Your task to perform on an android device: set the timer Image 0: 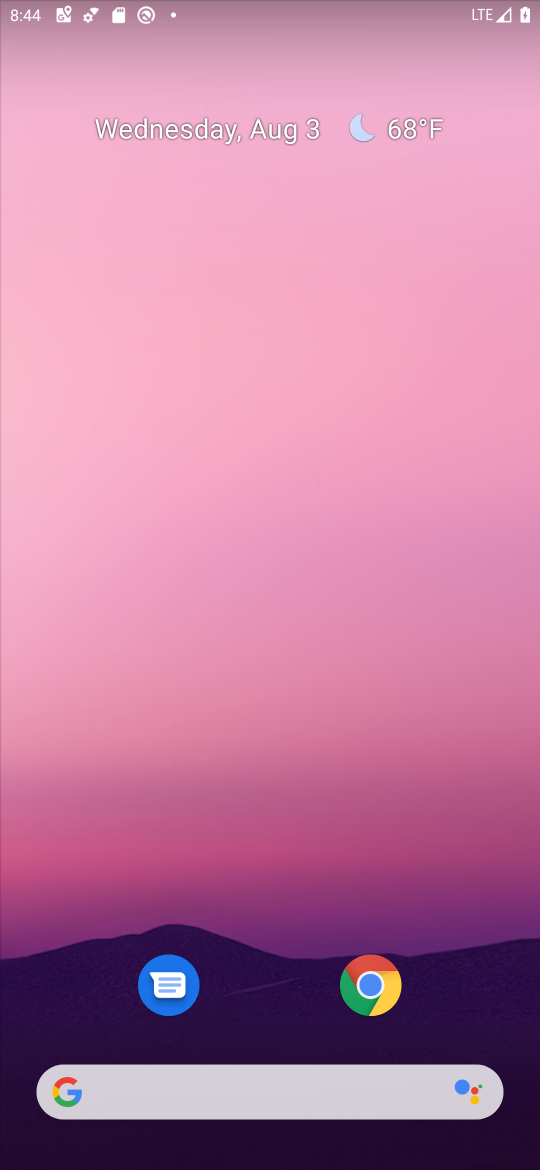
Step 0: drag from (272, 1009) to (253, 233)
Your task to perform on an android device: set the timer Image 1: 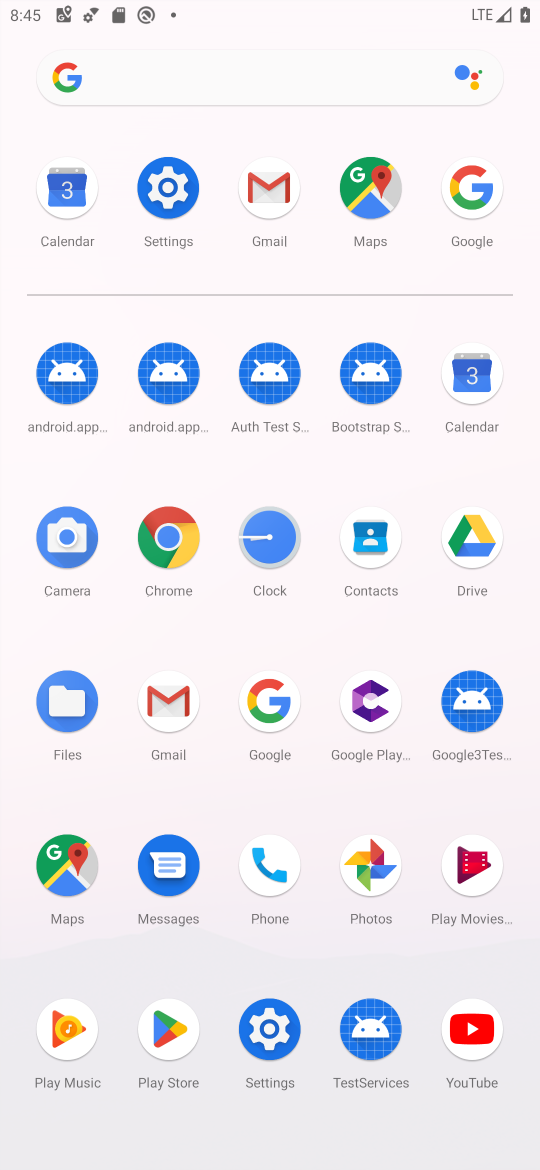
Step 1: click (259, 550)
Your task to perform on an android device: set the timer Image 2: 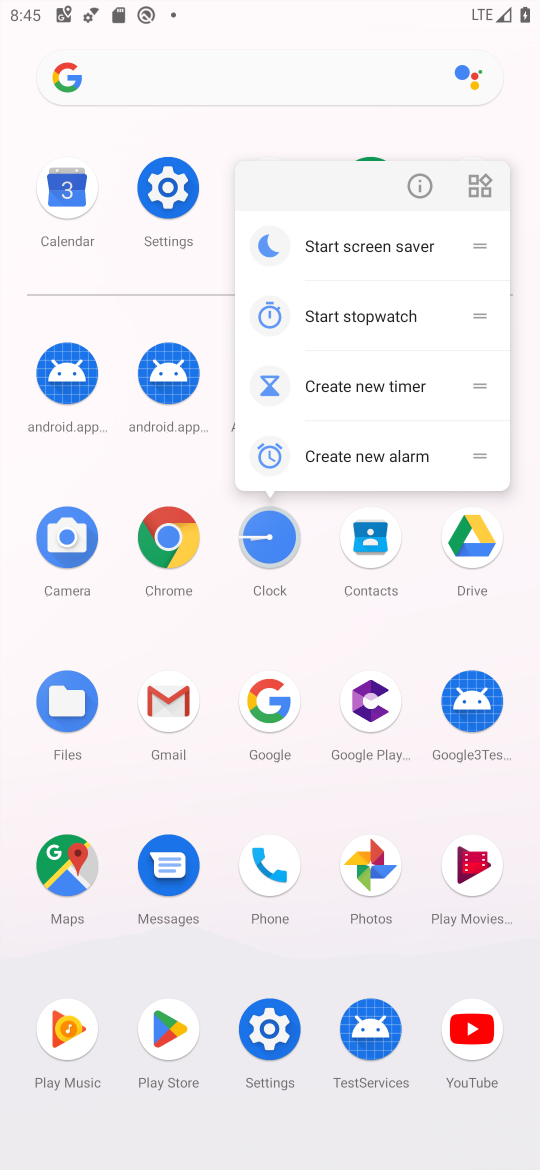
Step 2: click (259, 550)
Your task to perform on an android device: set the timer Image 3: 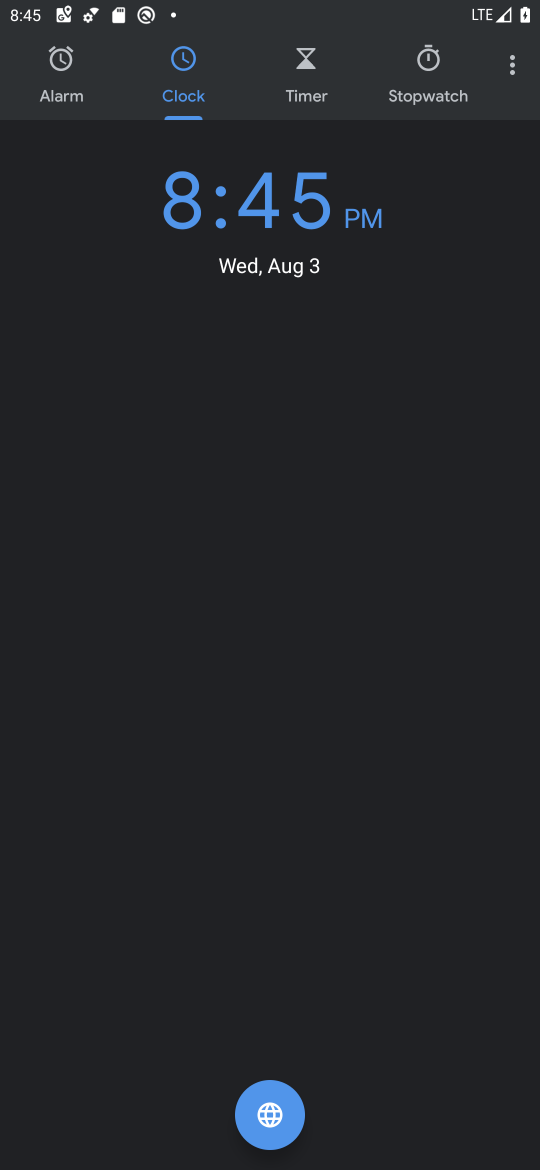
Step 3: click (306, 89)
Your task to perform on an android device: set the timer Image 4: 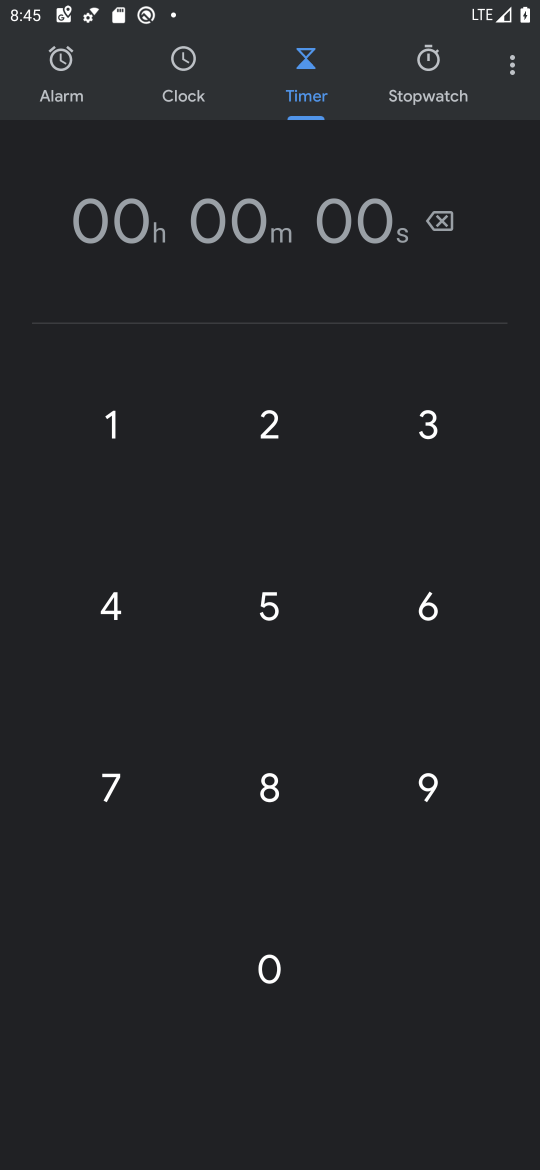
Step 4: type "11"
Your task to perform on an android device: set the timer Image 5: 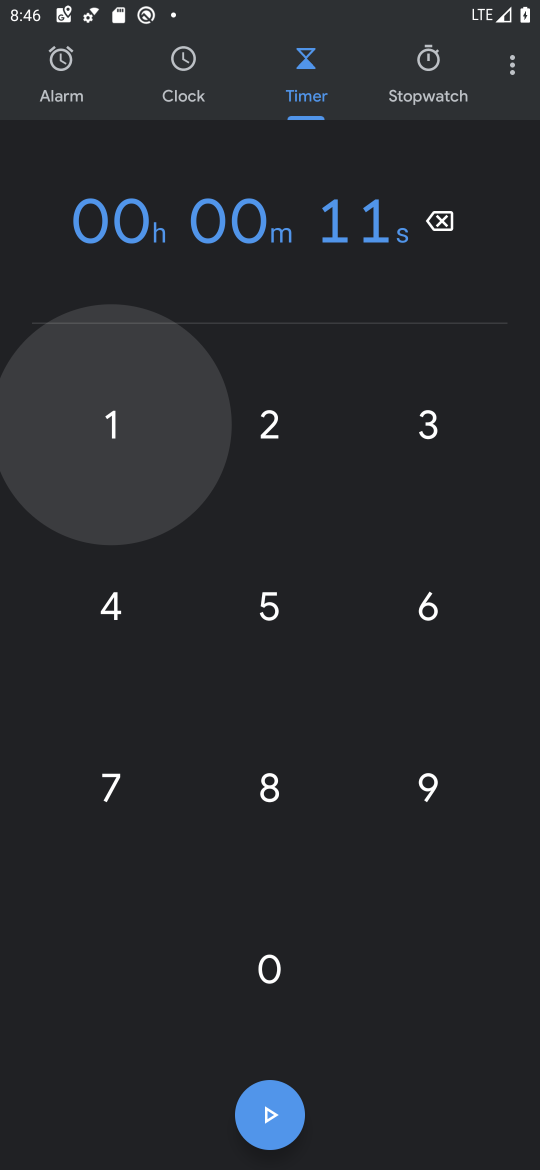
Step 5: click (271, 1102)
Your task to perform on an android device: set the timer Image 6: 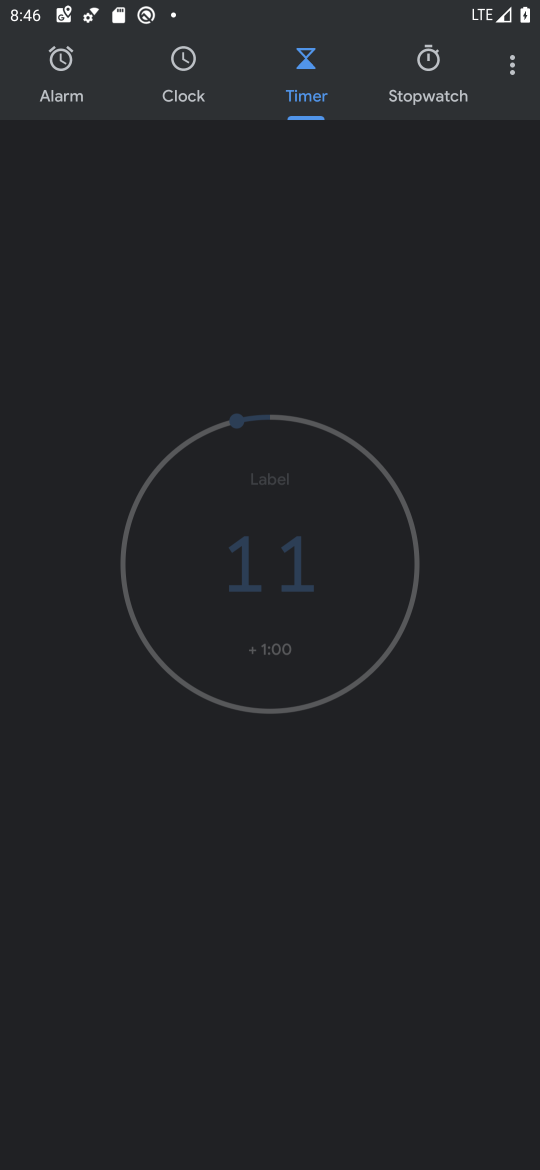
Step 6: task complete